Your task to perform on an android device: open wifi settings Image 0: 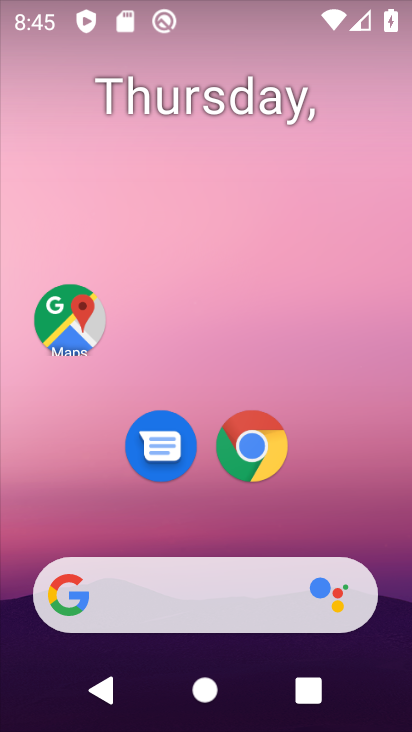
Step 0: drag from (328, 511) to (351, 89)
Your task to perform on an android device: open wifi settings Image 1: 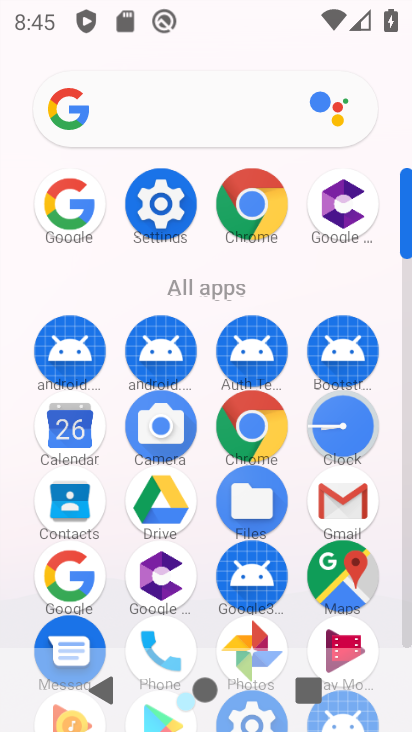
Step 1: drag from (287, 0) to (202, 722)
Your task to perform on an android device: open wifi settings Image 2: 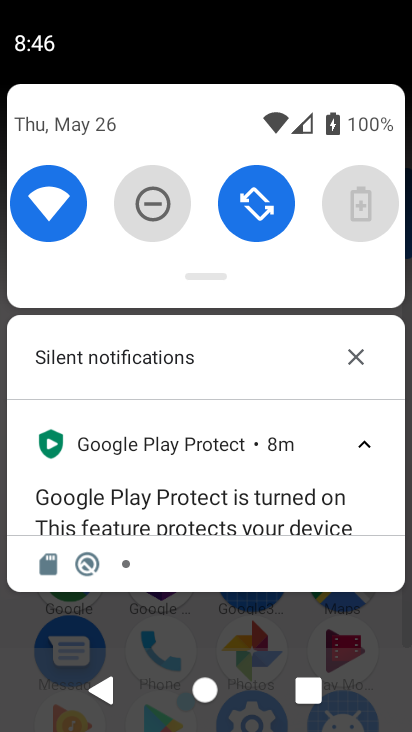
Step 2: click (47, 194)
Your task to perform on an android device: open wifi settings Image 3: 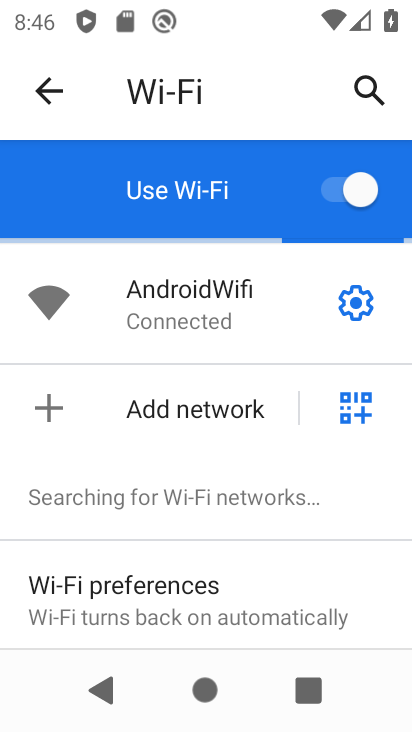
Step 3: task complete